Your task to perform on an android device: toggle airplane mode Image 0: 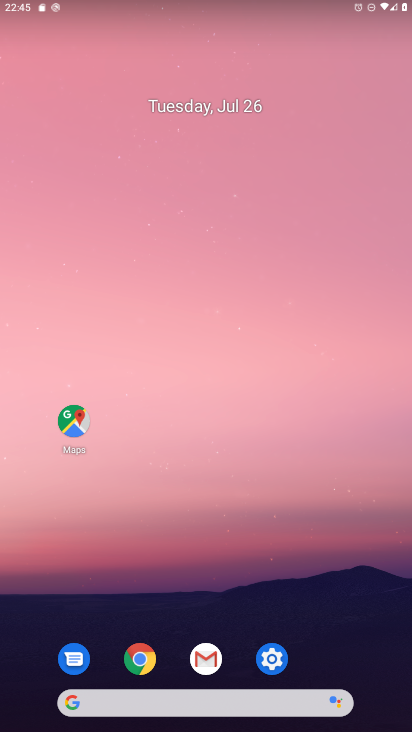
Step 0: click (262, 661)
Your task to perform on an android device: toggle airplane mode Image 1: 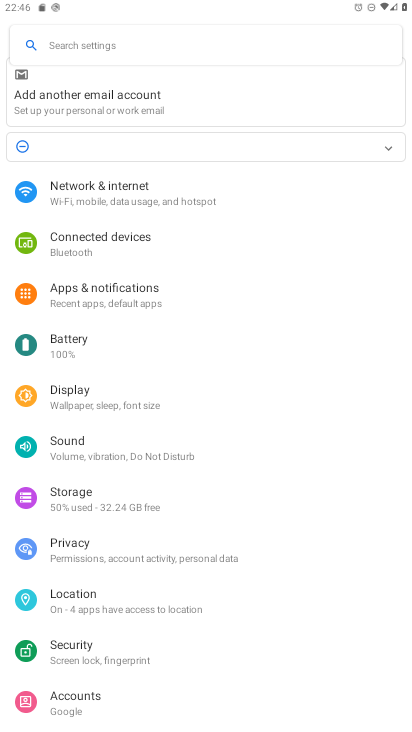
Step 1: click (93, 195)
Your task to perform on an android device: toggle airplane mode Image 2: 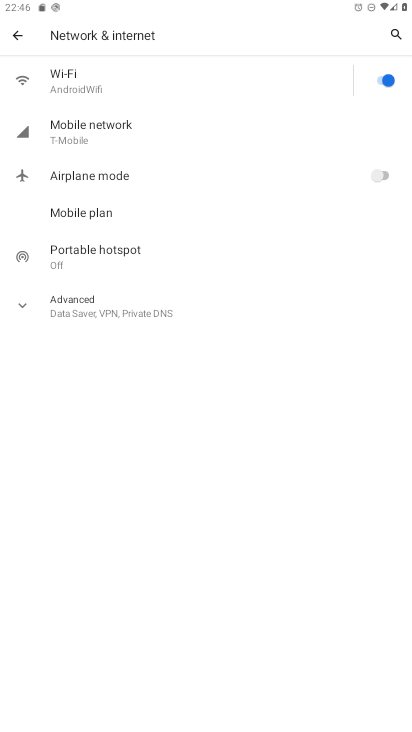
Step 2: click (115, 179)
Your task to perform on an android device: toggle airplane mode Image 3: 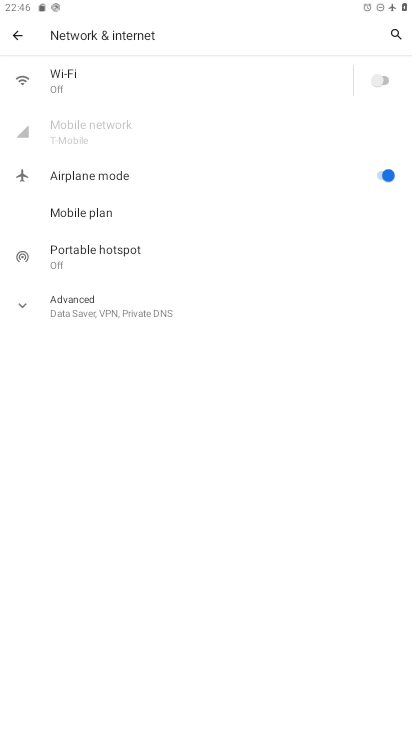
Step 3: click (108, 176)
Your task to perform on an android device: toggle airplane mode Image 4: 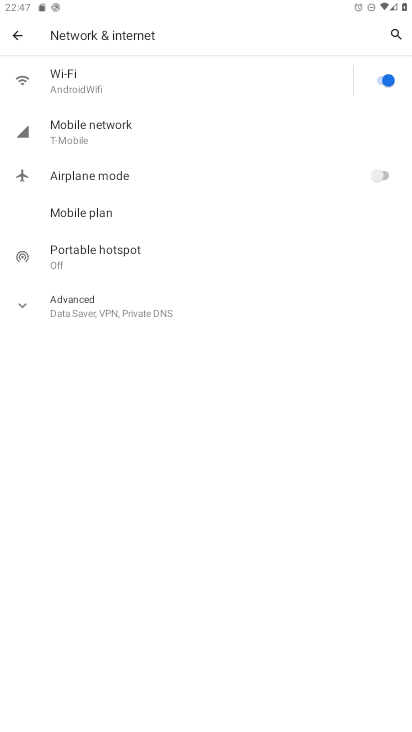
Step 4: task complete